Your task to perform on an android device: open chrome and create a bookmark for the current page Image 0: 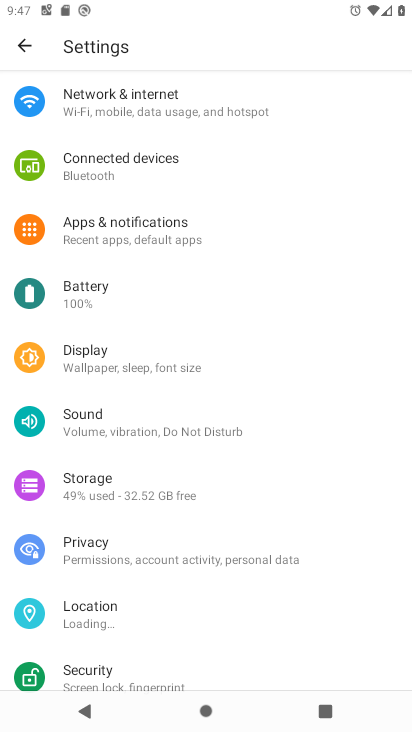
Step 0: press home button
Your task to perform on an android device: open chrome and create a bookmark for the current page Image 1: 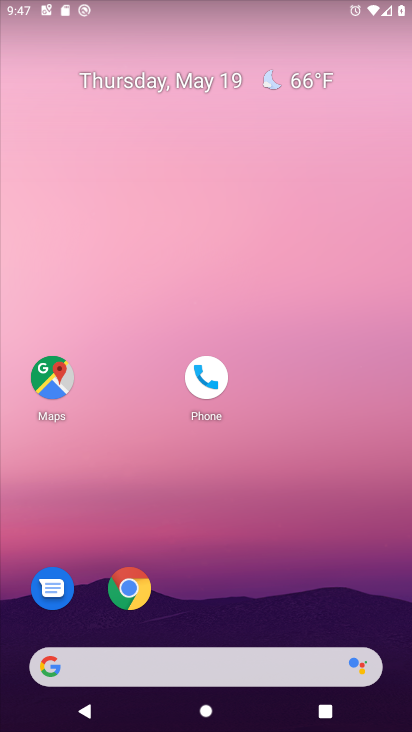
Step 1: drag from (359, 572) to (354, 209)
Your task to perform on an android device: open chrome and create a bookmark for the current page Image 2: 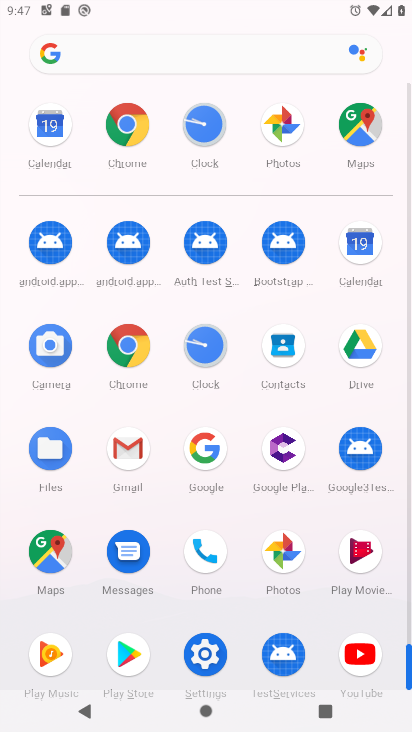
Step 2: click (136, 361)
Your task to perform on an android device: open chrome and create a bookmark for the current page Image 3: 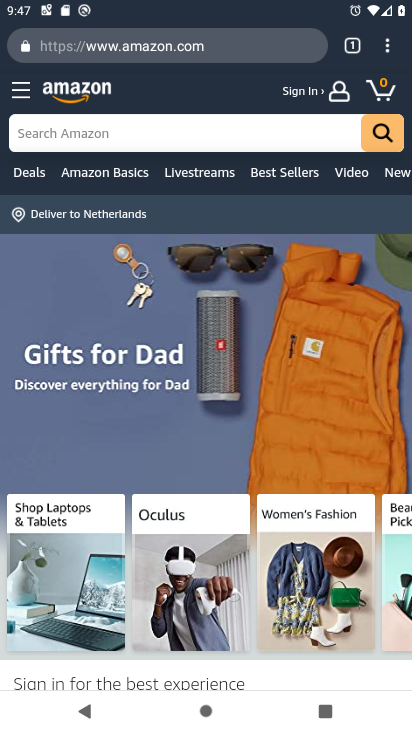
Step 3: click (389, 51)
Your task to perform on an android device: open chrome and create a bookmark for the current page Image 4: 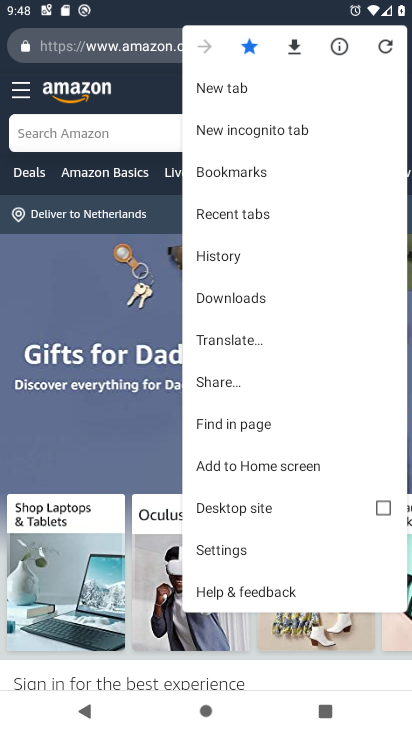
Step 4: task complete